Your task to perform on an android device: Open maps Image 0: 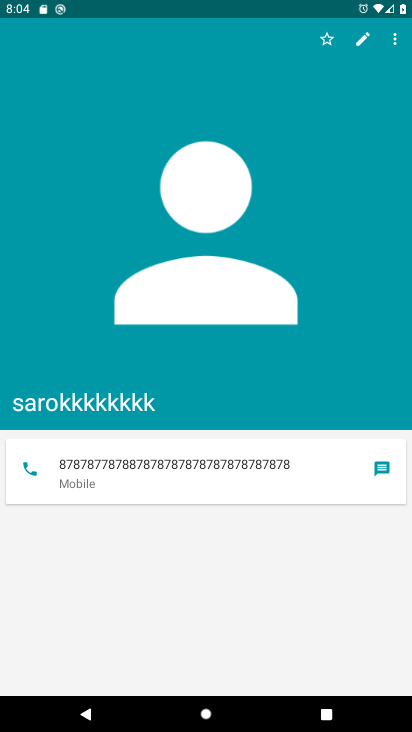
Step 0: press home button
Your task to perform on an android device: Open maps Image 1: 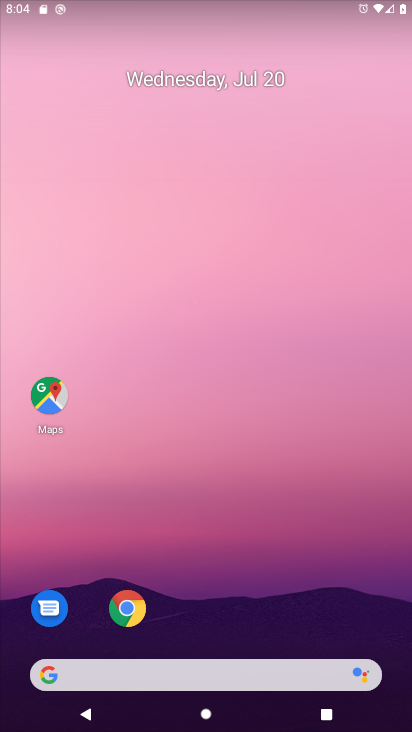
Step 1: click (46, 405)
Your task to perform on an android device: Open maps Image 2: 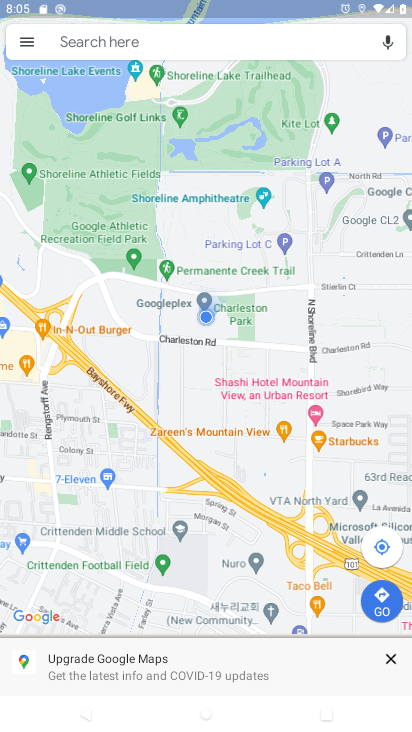
Step 2: task complete